Your task to perform on an android device: open wifi settings Image 0: 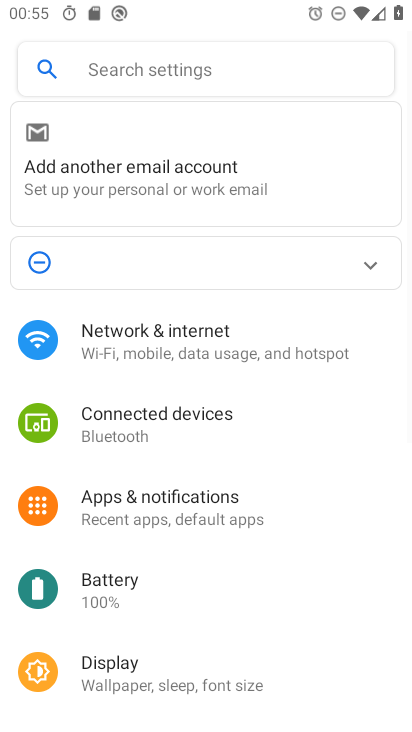
Step 0: press home button
Your task to perform on an android device: open wifi settings Image 1: 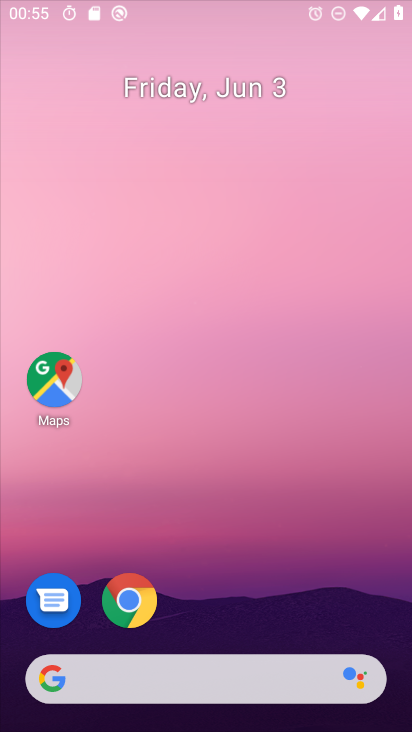
Step 1: drag from (212, 607) to (224, 131)
Your task to perform on an android device: open wifi settings Image 2: 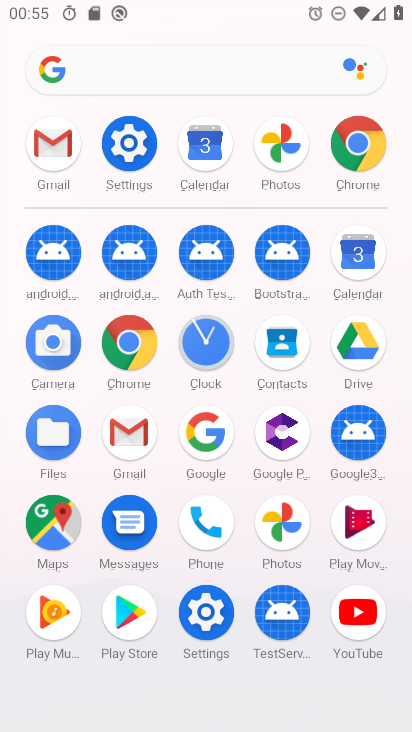
Step 2: click (130, 140)
Your task to perform on an android device: open wifi settings Image 3: 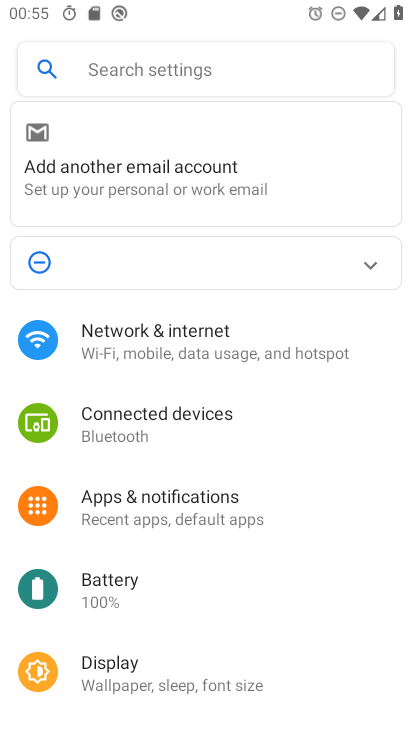
Step 3: click (214, 355)
Your task to perform on an android device: open wifi settings Image 4: 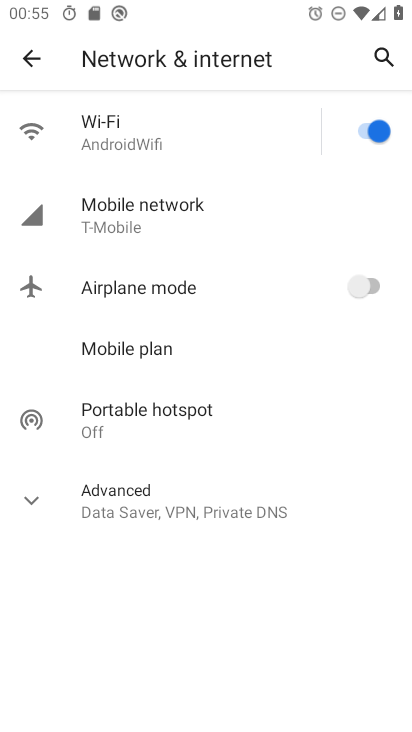
Step 4: click (162, 137)
Your task to perform on an android device: open wifi settings Image 5: 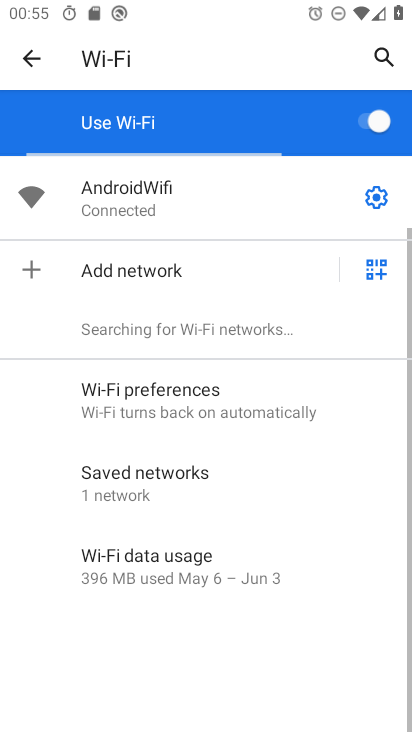
Step 5: click (178, 188)
Your task to perform on an android device: open wifi settings Image 6: 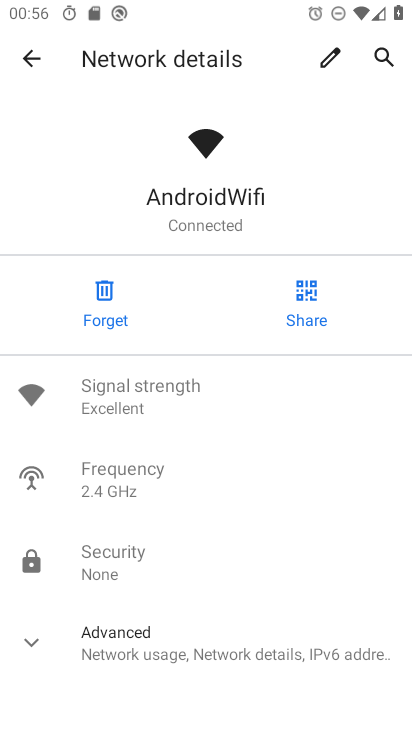
Step 6: task complete